Your task to perform on an android device: Is it going to rain this weekend? Image 0: 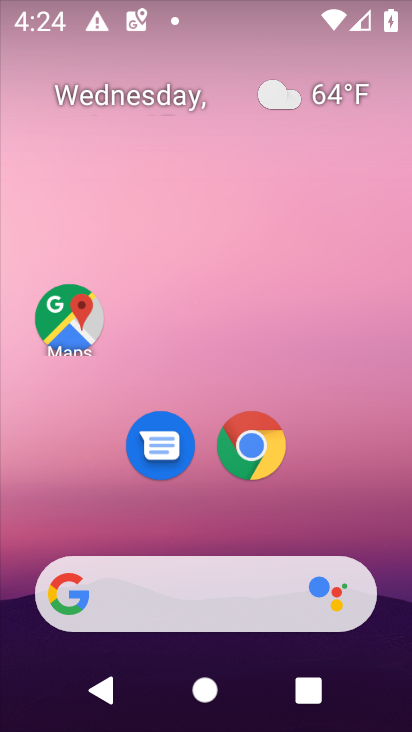
Step 0: click (321, 97)
Your task to perform on an android device: Is it going to rain this weekend? Image 1: 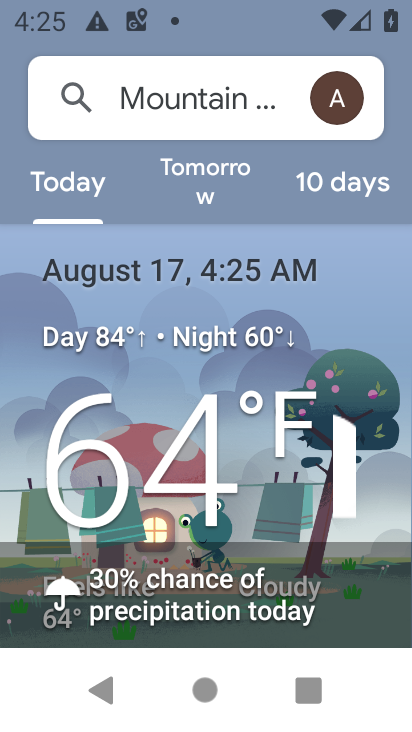
Step 1: click (344, 174)
Your task to perform on an android device: Is it going to rain this weekend? Image 2: 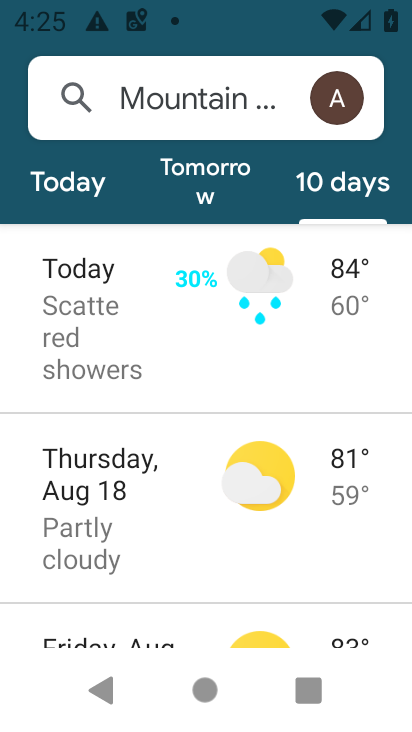
Step 2: drag from (210, 595) to (228, 260)
Your task to perform on an android device: Is it going to rain this weekend? Image 3: 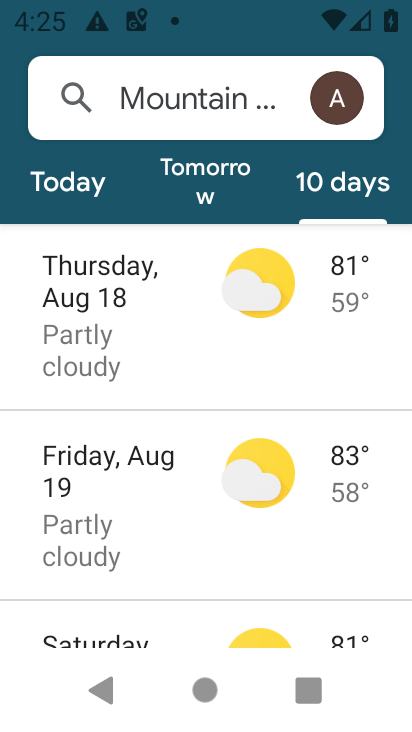
Step 3: drag from (169, 604) to (241, 271)
Your task to perform on an android device: Is it going to rain this weekend? Image 4: 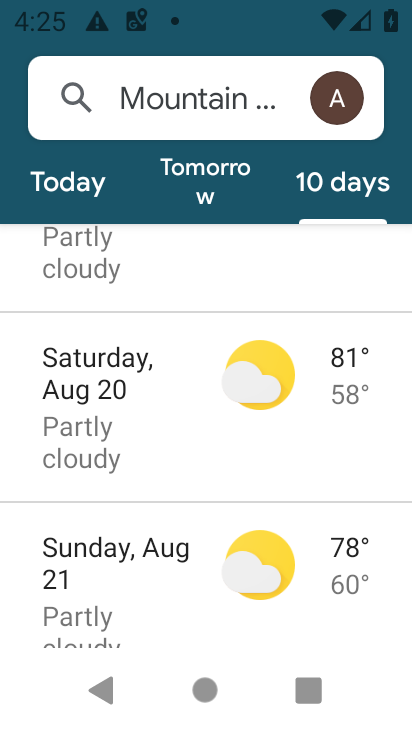
Step 4: click (122, 397)
Your task to perform on an android device: Is it going to rain this weekend? Image 5: 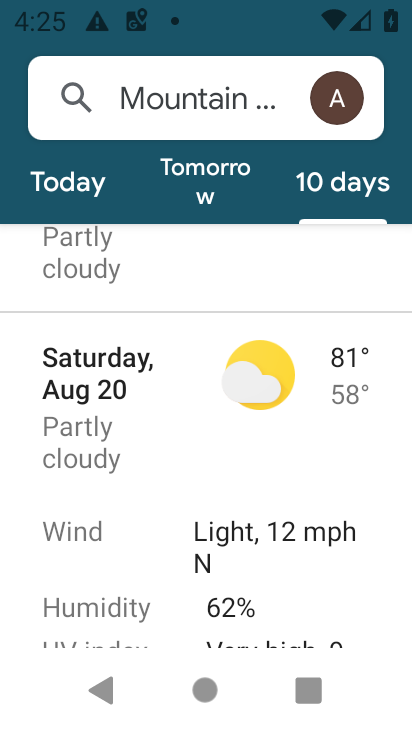
Step 5: task complete